Your task to perform on an android device: Open the calendar app, open the side menu, and click the "Day" option Image 0: 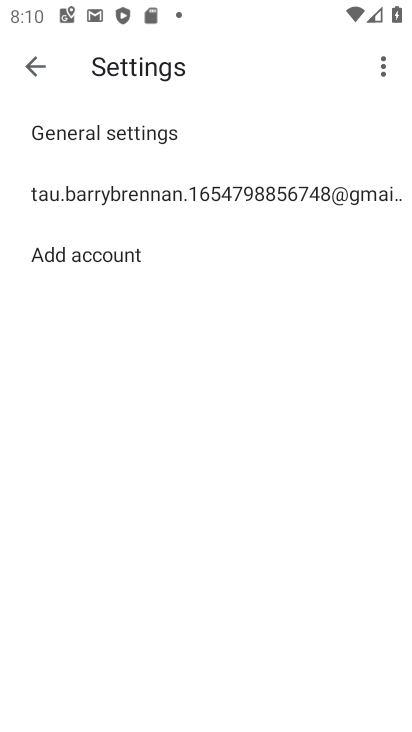
Step 0: press home button
Your task to perform on an android device: Open the calendar app, open the side menu, and click the "Day" option Image 1: 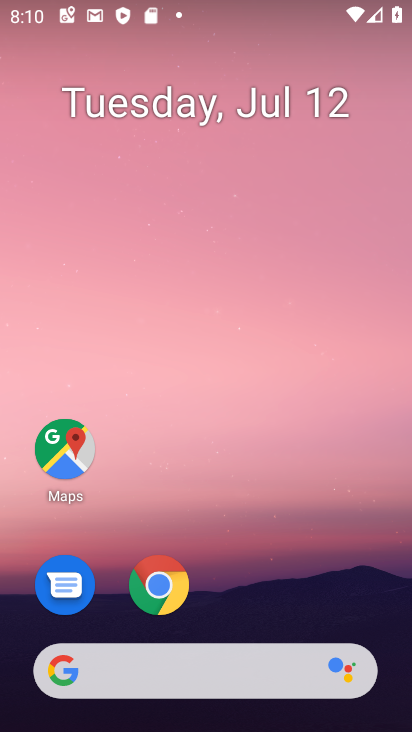
Step 1: drag from (228, 604) to (275, 23)
Your task to perform on an android device: Open the calendar app, open the side menu, and click the "Day" option Image 2: 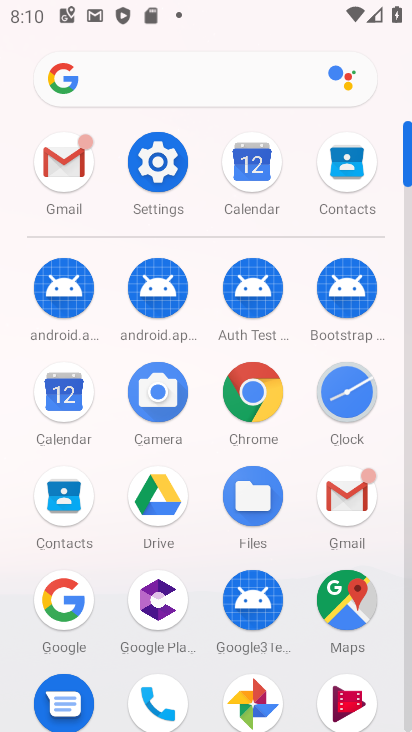
Step 2: click (70, 402)
Your task to perform on an android device: Open the calendar app, open the side menu, and click the "Day" option Image 3: 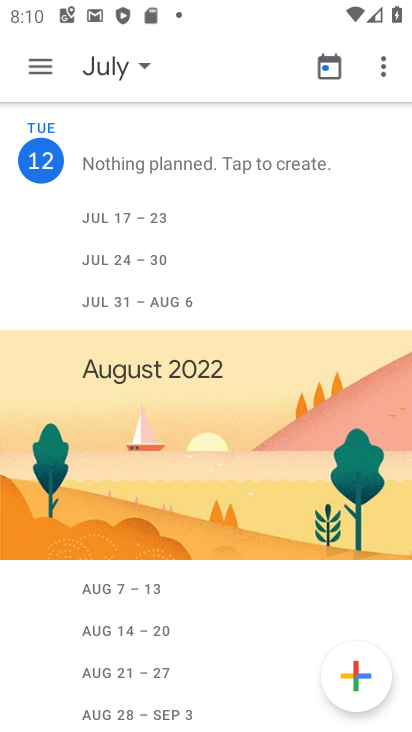
Step 3: click (45, 64)
Your task to perform on an android device: Open the calendar app, open the side menu, and click the "Day" option Image 4: 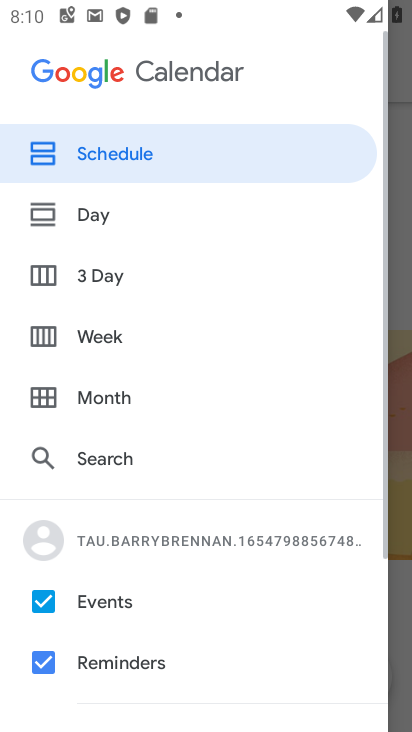
Step 4: click (50, 212)
Your task to perform on an android device: Open the calendar app, open the side menu, and click the "Day" option Image 5: 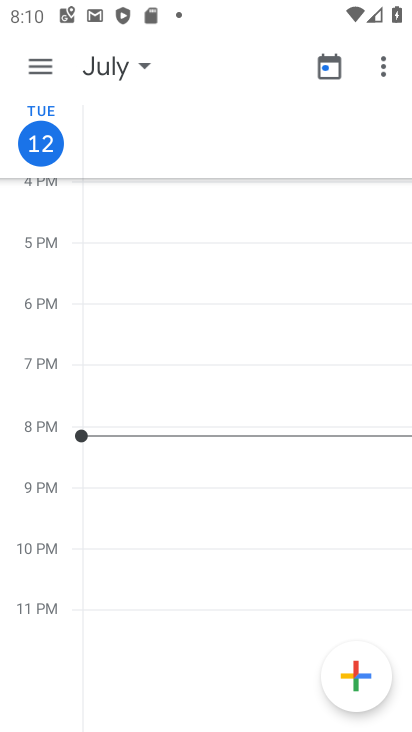
Step 5: task complete